Your task to perform on an android device: open app "Messenger Lite" Image 0: 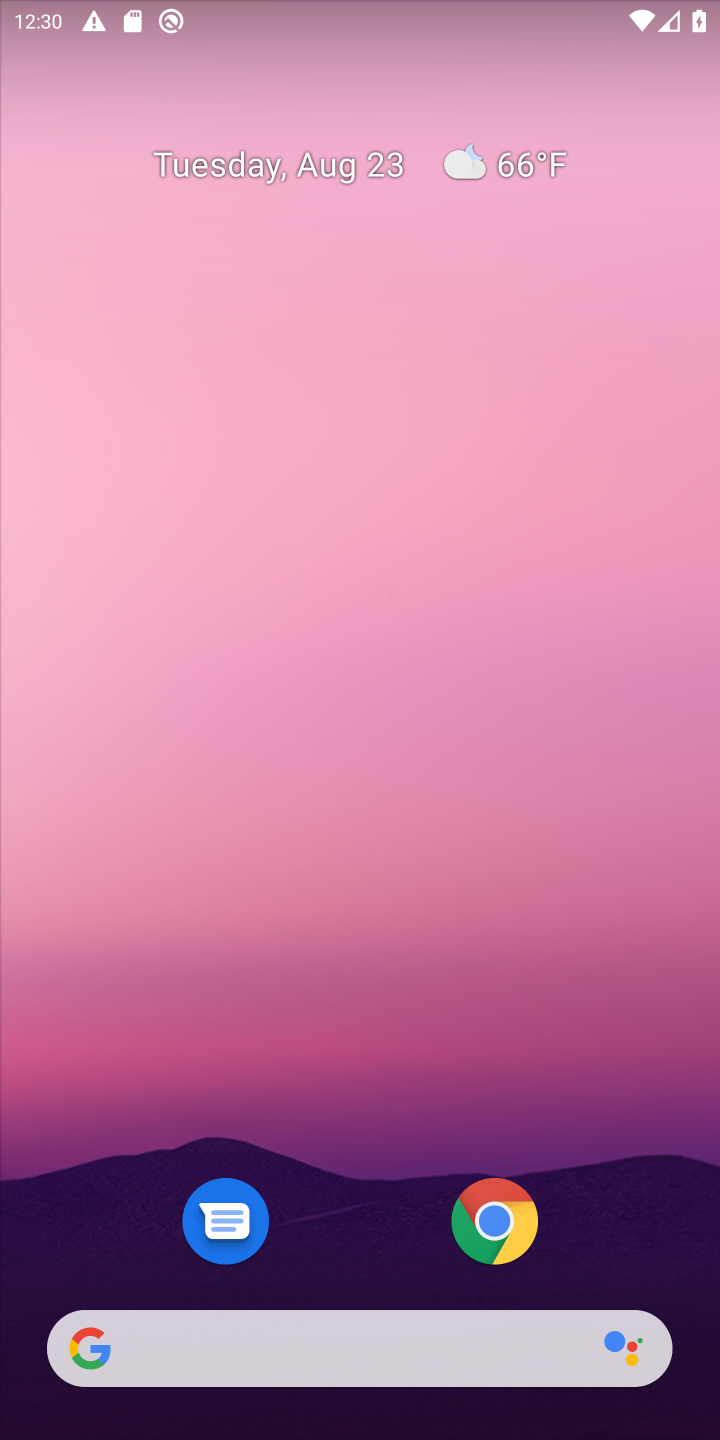
Step 0: drag from (388, 1065) to (432, 483)
Your task to perform on an android device: open app "Messenger Lite" Image 1: 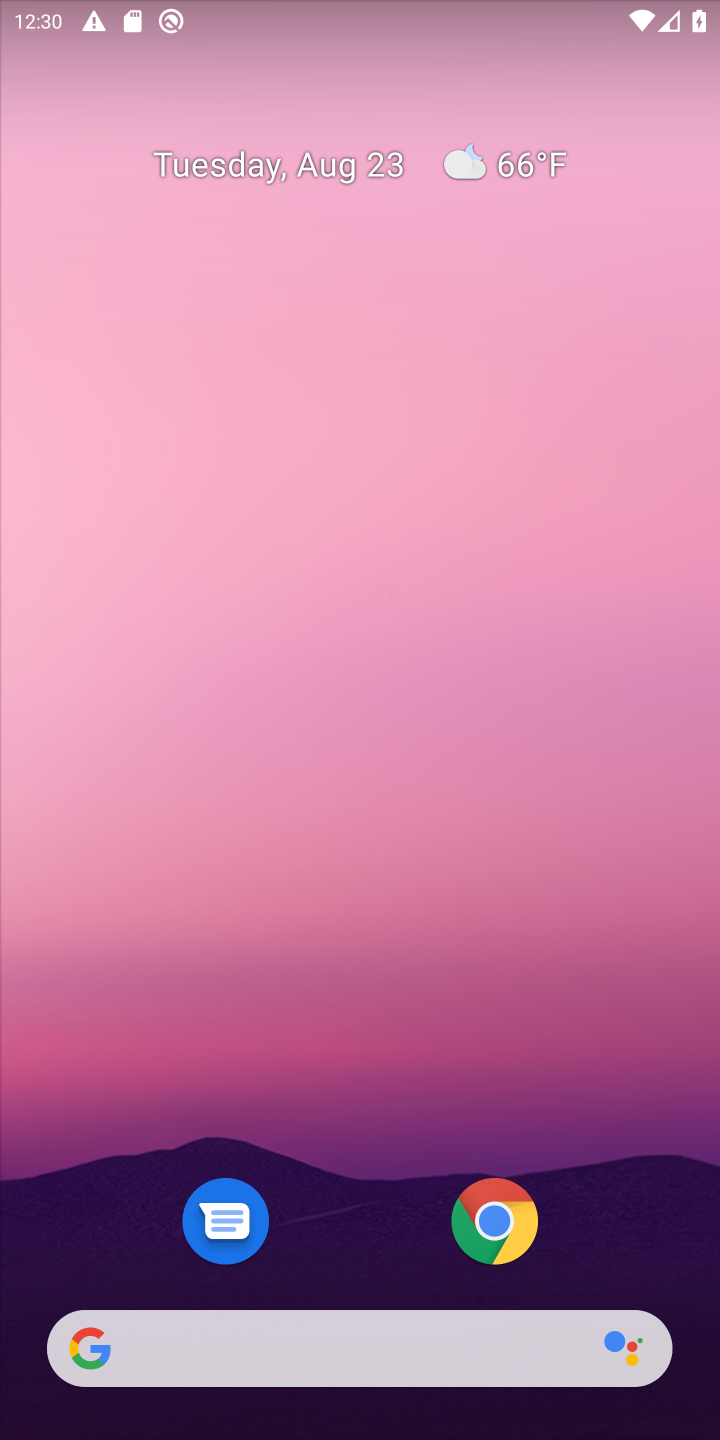
Step 1: drag from (380, 811) to (467, 47)
Your task to perform on an android device: open app "Messenger Lite" Image 2: 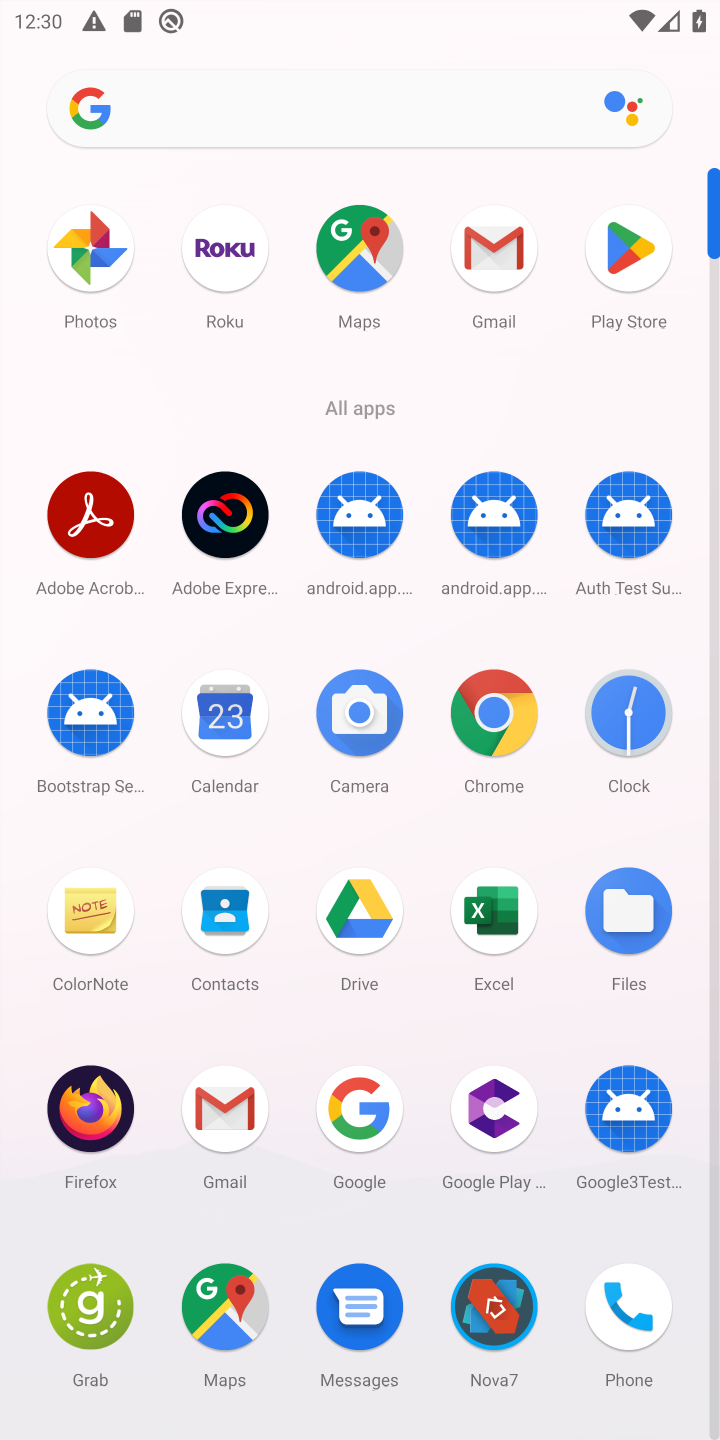
Step 2: click (615, 247)
Your task to perform on an android device: open app "Messenger Lite" Image 3: 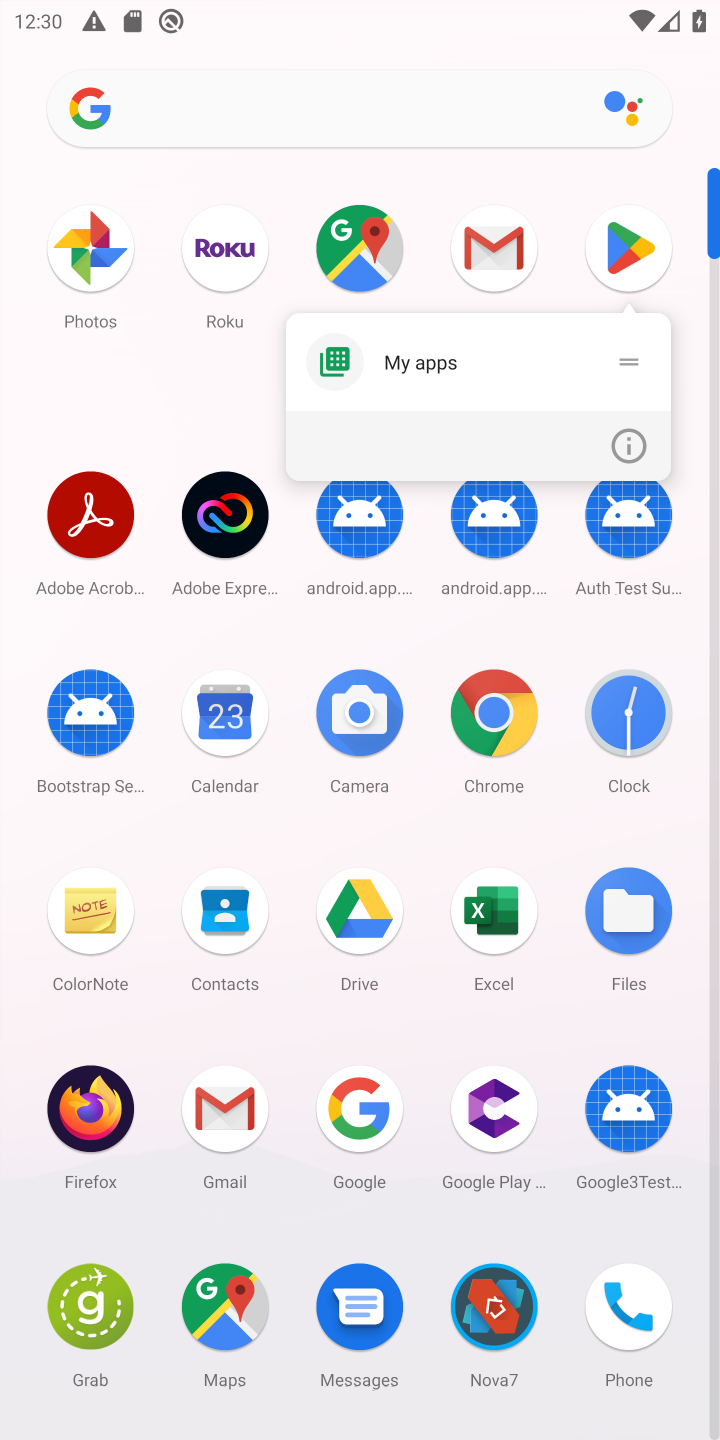
Step 3: click (637, 268)
Your task to perform on an android device: open app "Messenger Lite" Image 4: 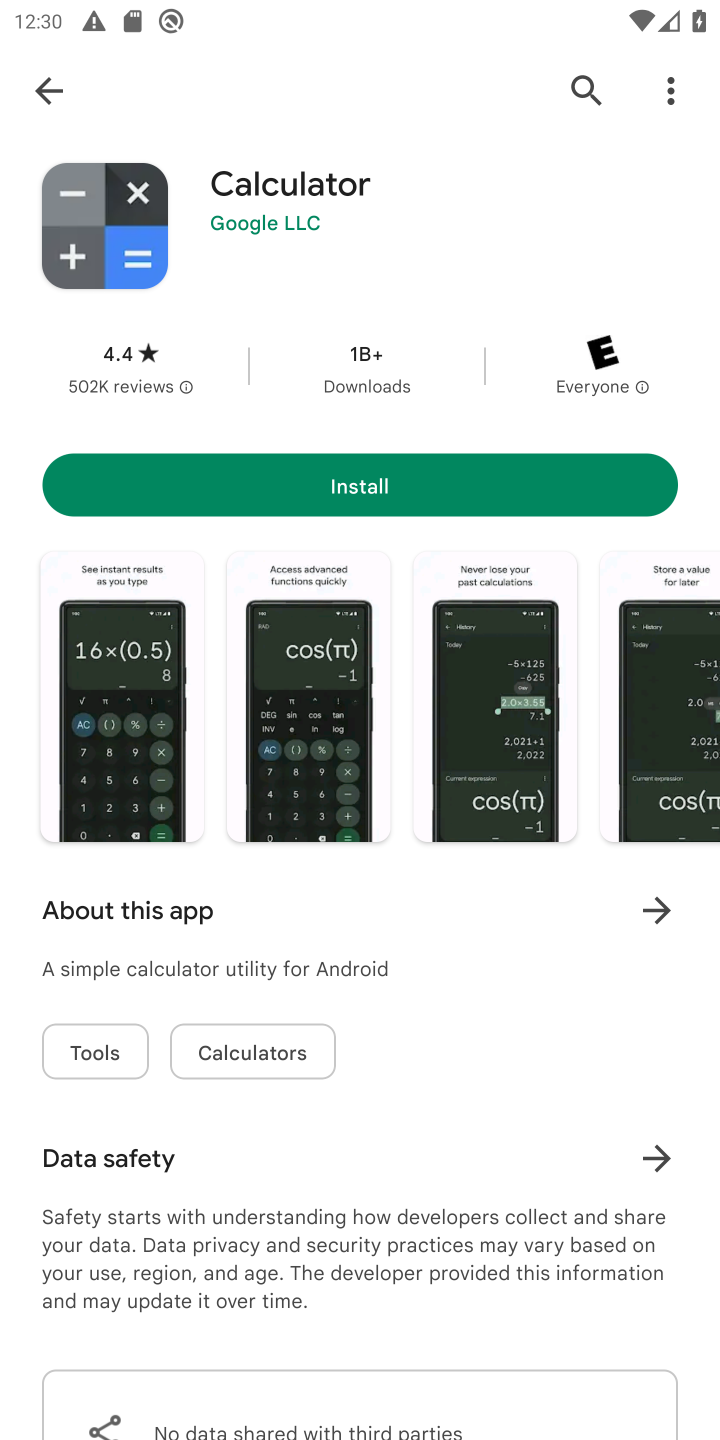
Step 4: click (581, 65)
Your task to perform on an android device: open app "Messenger Lite" Image 5: 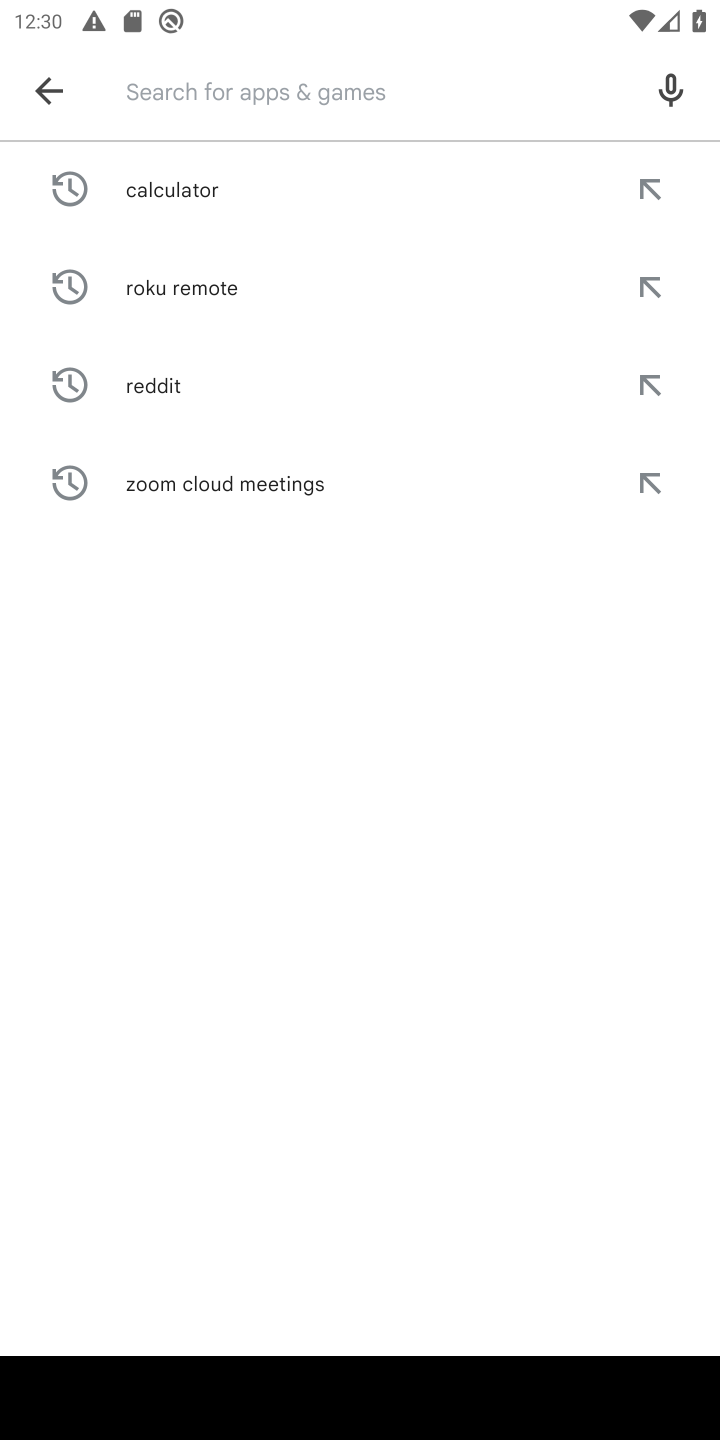
Step 5: click (254, 93)
Your task to perform on an android device: open app "Messenger Lite" Image 6: 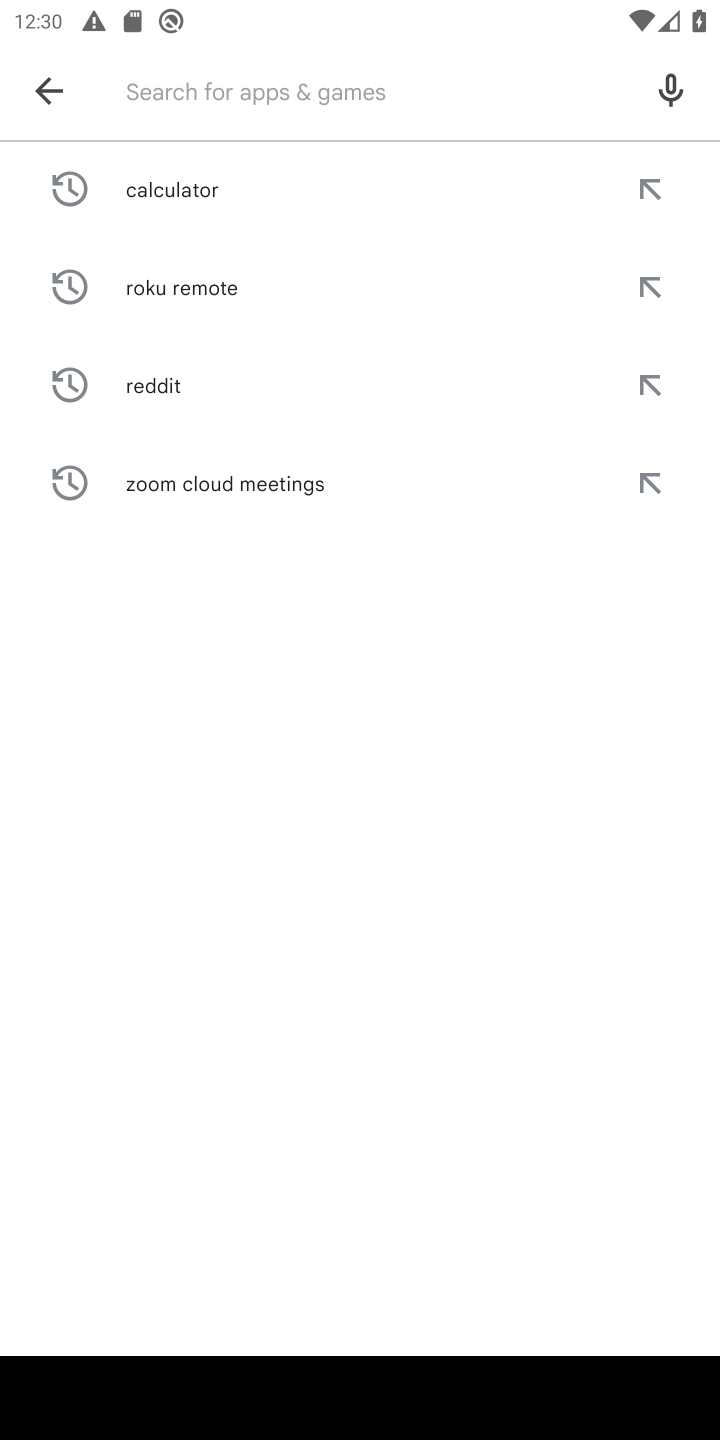
Step 6: type "Messenger Lite"
Your task to perform on an android device: open app "Messenger Lite" Image 7: 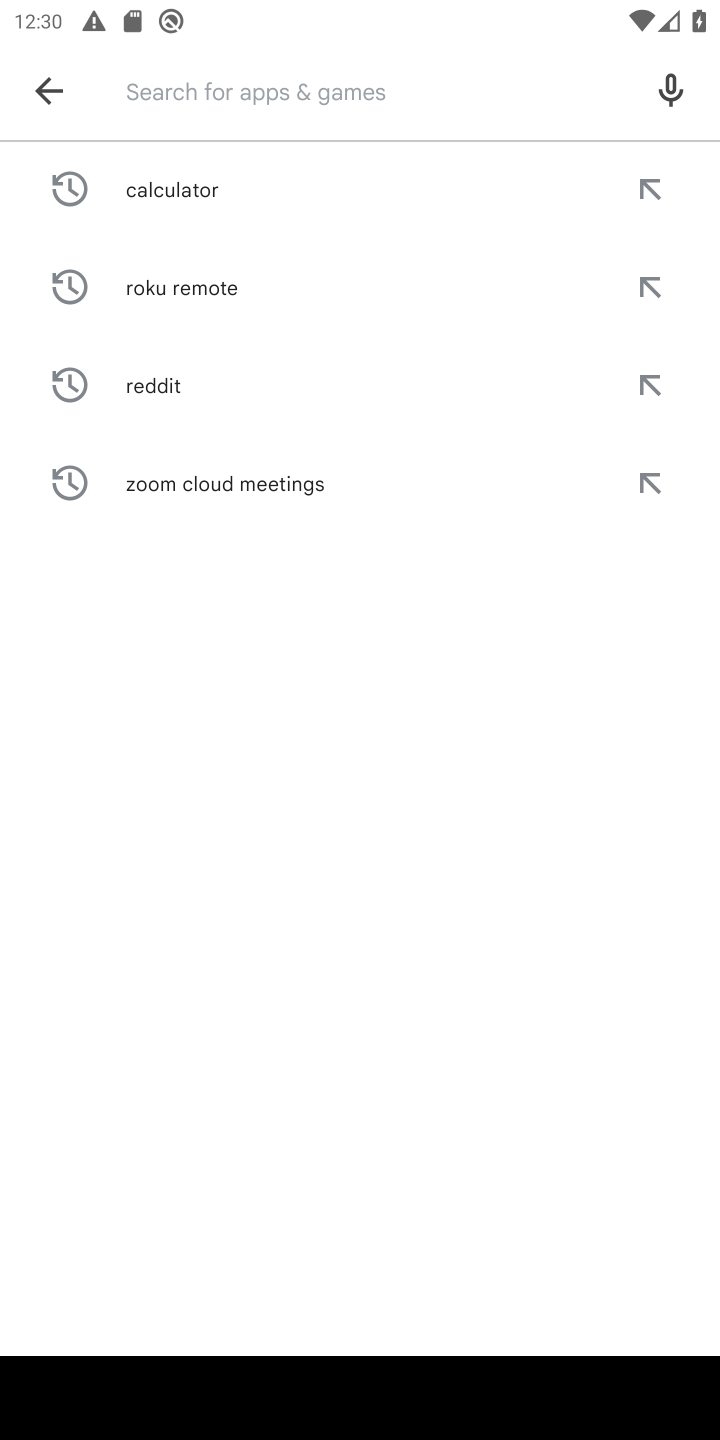
Step 7: click (519, 987)
Your task to perform on an android device: open app "Messenger Lite" Image 8: 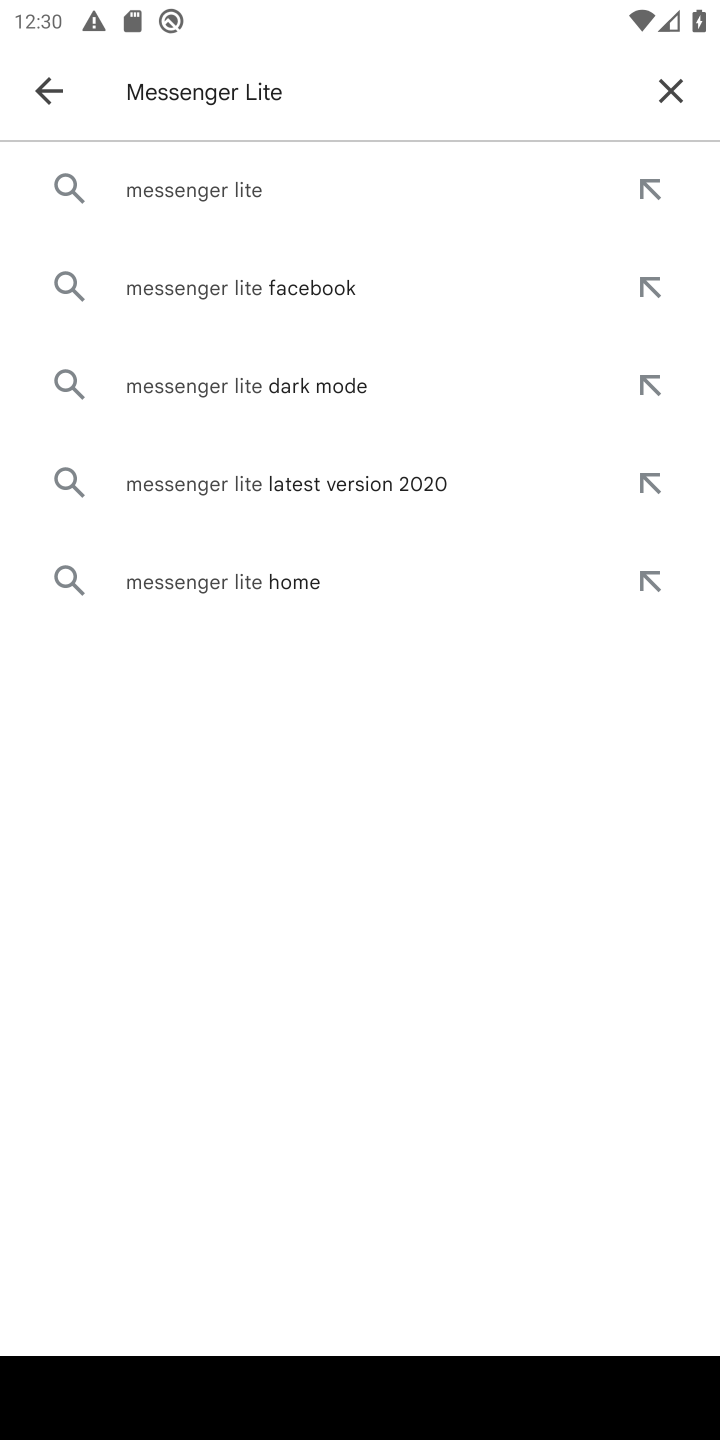
Step 8: click (254, 192)
Your task to perform on an android device: open app "Messenger Lite" Image 9: 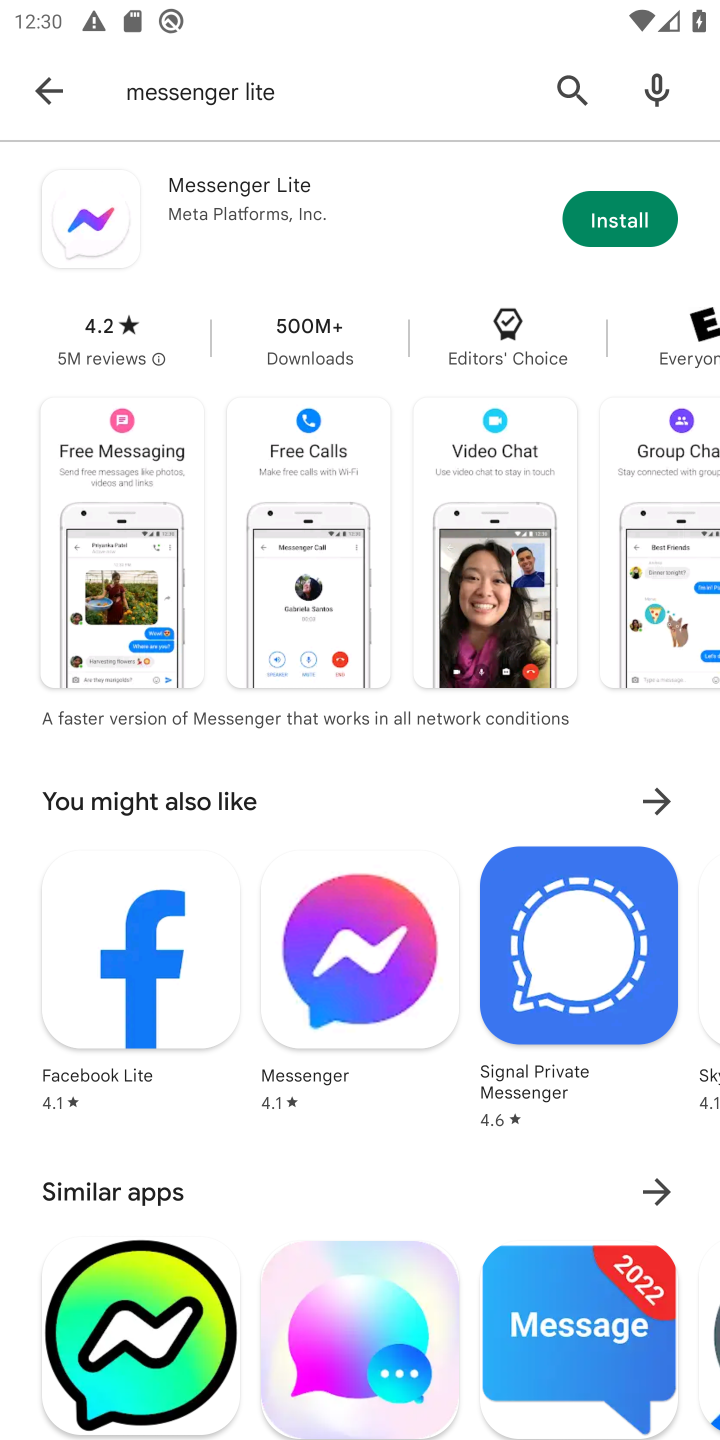
Step 9: task complete